Your task to perform on an android device: toggle notification dots Image 0: 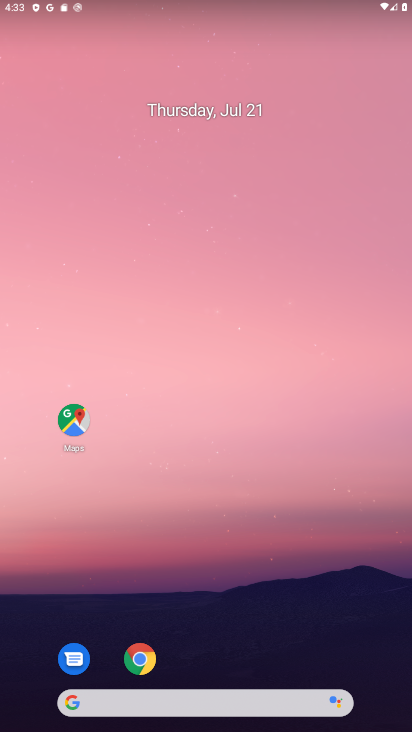
Step 0: drag from (241, 607) to (215, 213)
Your task to perform on an android device: toggle notification dots Image 1: 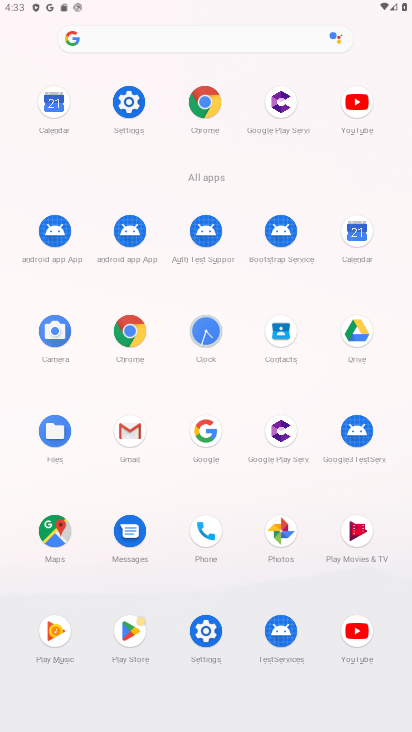
Step 1: click (206, 633)
Your task to perform on an android device: toggle notification dots Image 2: 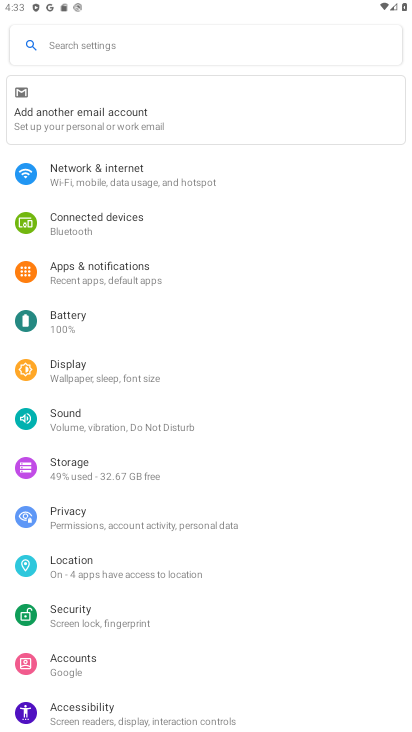
Step 2: click (96, 265)
Your task to perform on an android device: toggle notification dots Image 3: 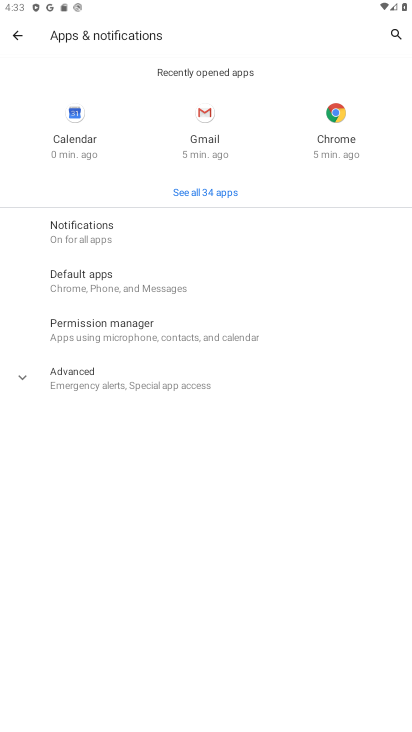
Step 3: click (88, 223)
Your task to perform on an android device: toggle notification dots Image 4: 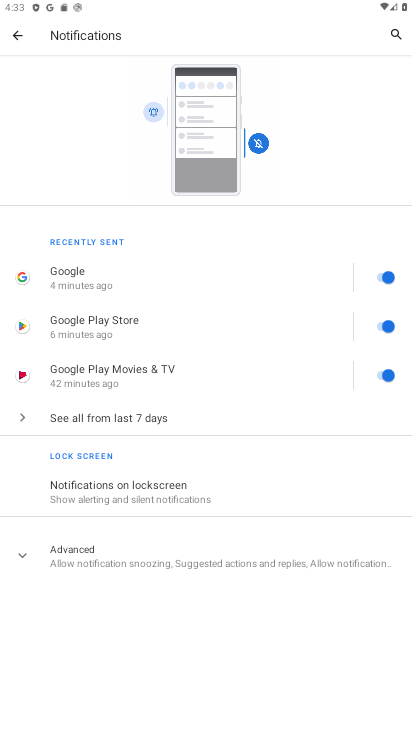
Step 4: click (59, 569)
Your task to perform on an android device: toggle notification dots Image 5: 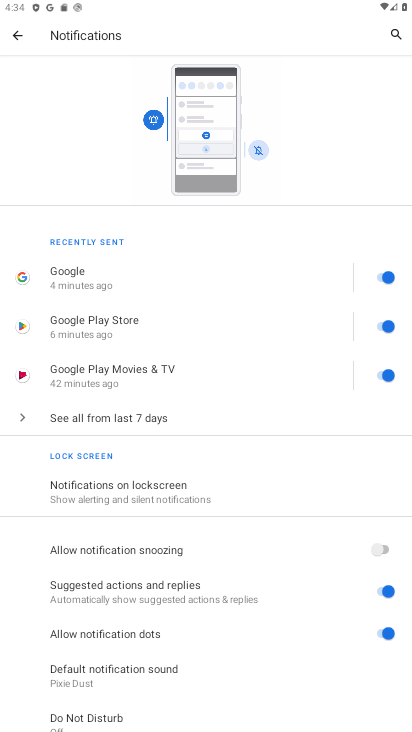
Step 5: click (387, 630)
Your task to perform on an android device: toggle notification dots Image 6: 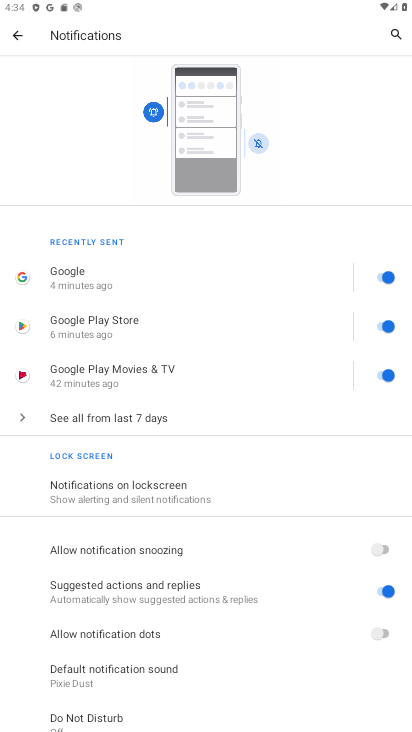
Step 6: task complete